Your task to perform on an android device: Go to sound settings Image 0: 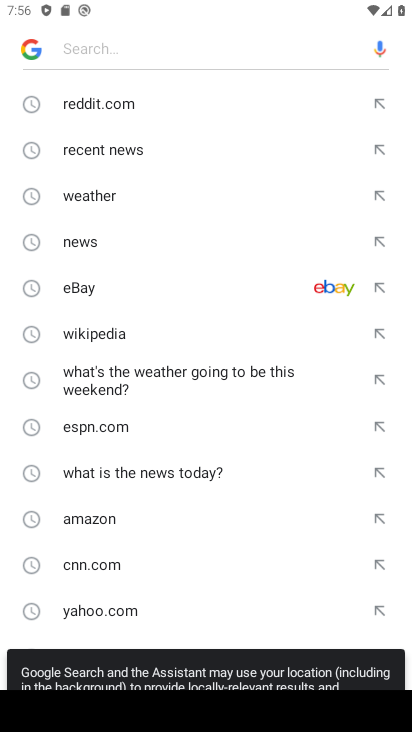
Step 0: press home button
Your task to perform on an android device: Go to sound settings Image 1: 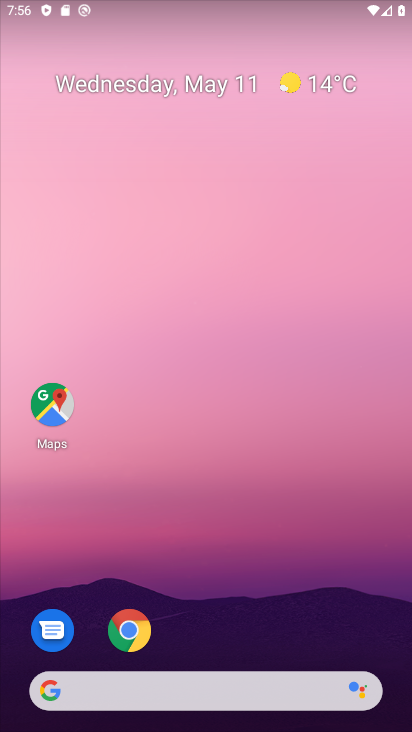
Step 1: drag from (224, 648) to (209, 191)
Your task to perform on an android device: Go to sound settings Image 2: 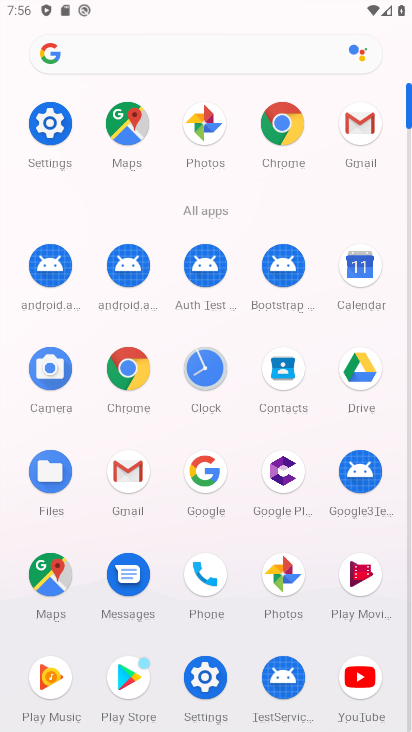
Step 2: click (57, 123)
Your task to perform on an android device: Go to sound settings Image 3: 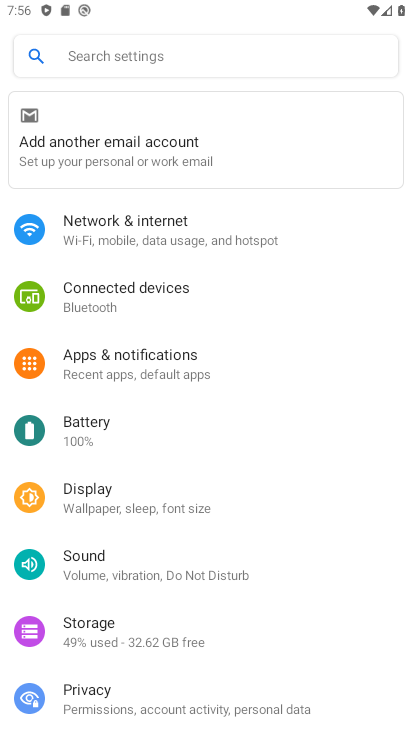
Step 3: click (90, 576)
Your task to perform on an android device: Go to sound settings Image 4: 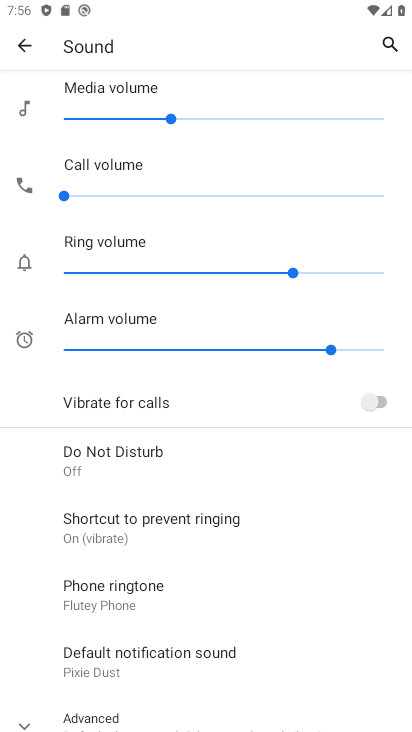
Step 4: task complete